Your task to perform on an android device: Go to Reddit.com Image 0: 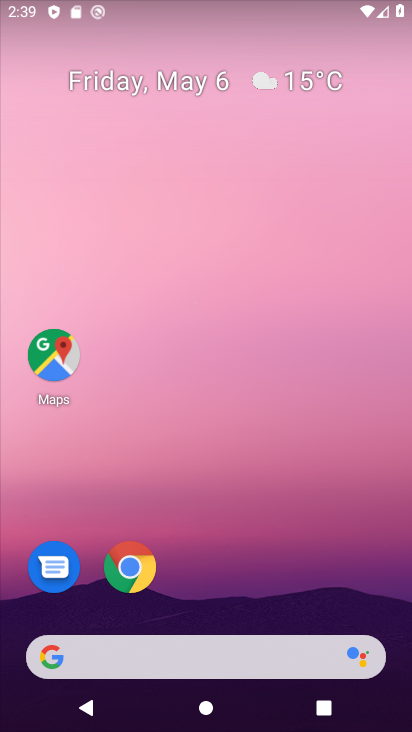
Step 0: drag from (202, 511) to (298, 43)
Your task to perform on an android device: Go to Reddit.com Image 1: 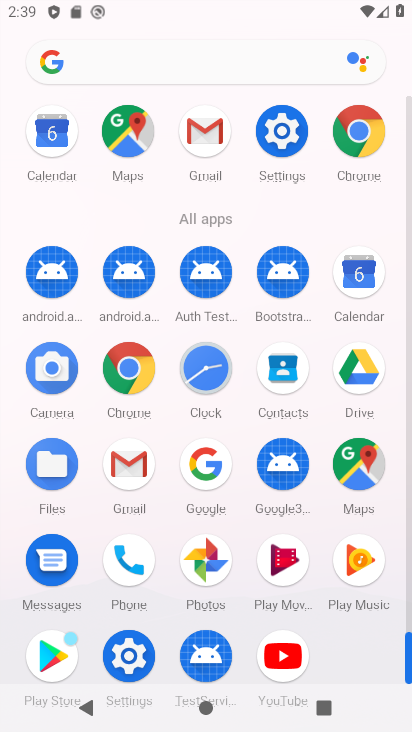
Step 1: click (204, 459)
Your task to perform on an android device: Go to Reddit.com Image 2: 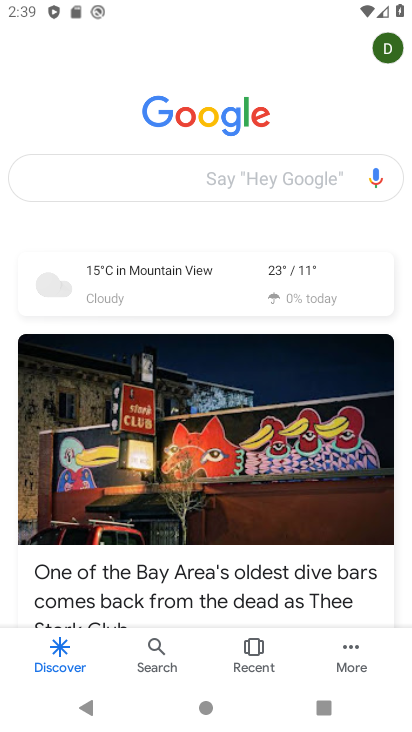
Step 2: click (231, 188)
Your task to perform on an android device: Go to Reddit.com Image 3: 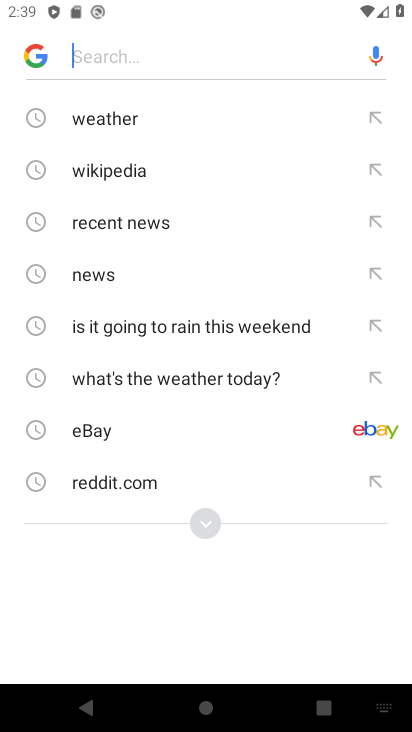
Step 3: type "Reddit.com"
Your task to perform on an android device: Go to Reddit.com Image 4: 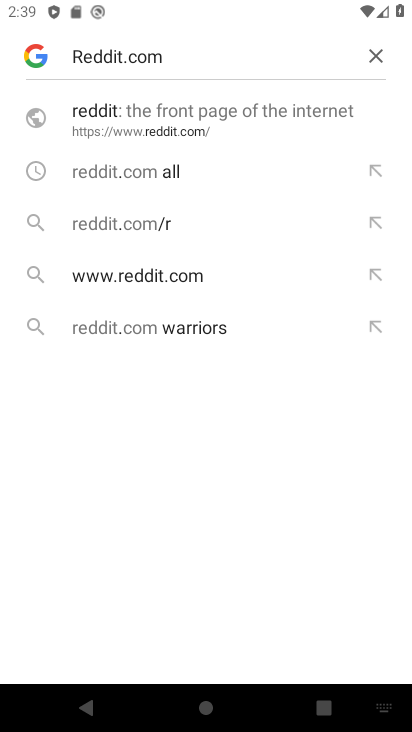
Step 4: click (207, 135)
Your task to perform on an android device: Go to Reddit.com Image 5: 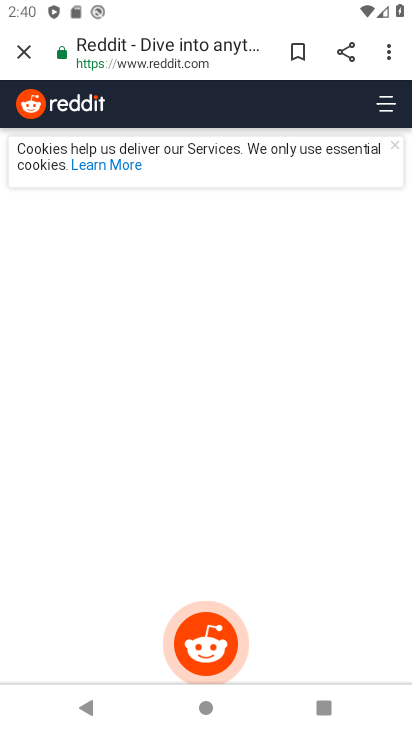
Step 5: task complete